Your task to perform on an android device: Open Chrome and go to the settings page Image 0: 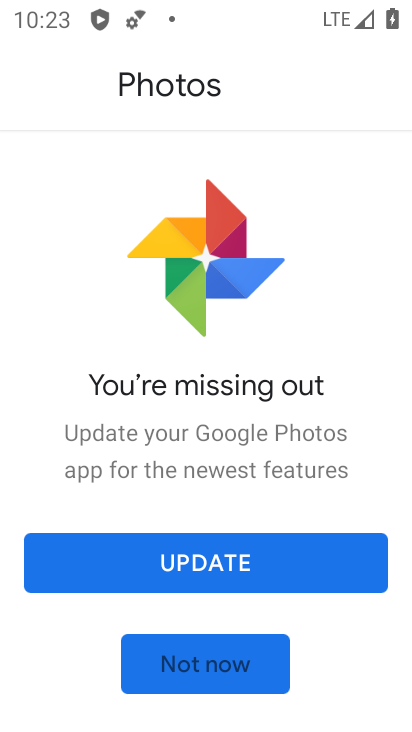
Step 0: click (240, 673)
Your task to perform on an android device: Open Chrome and go to the settings page Image 1: 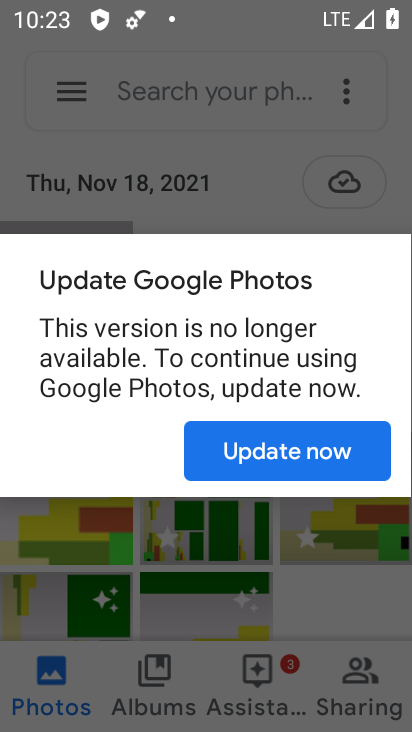
Step 1: click (281, 468)
Your task to perform on an android device: Open Chrome and go to the settings page Image 2: 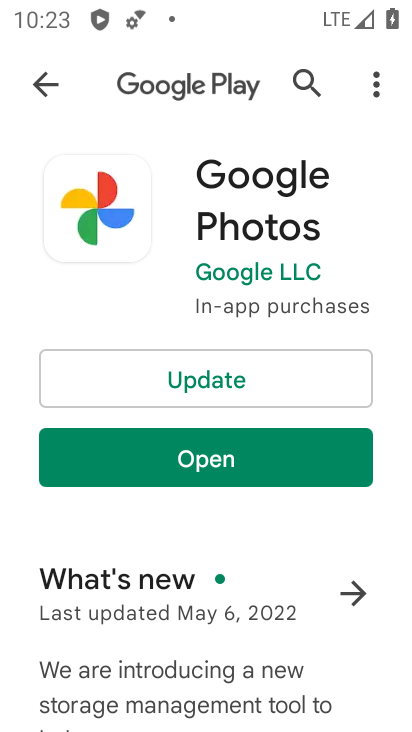
Step 2: task complete